Your task to perform on an android device: toggle priority inbox in the gmail app Image 0: 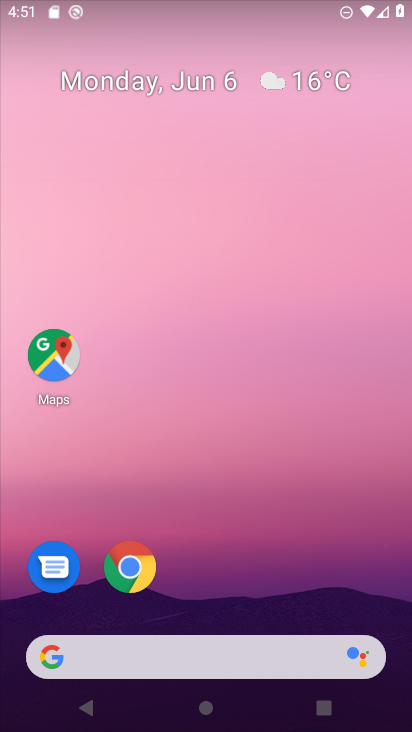
Step 0: drag from (291, 682) to (170, 229)
Your task to perform on an android device: toggle priority inbox in the gmail app Image 1: 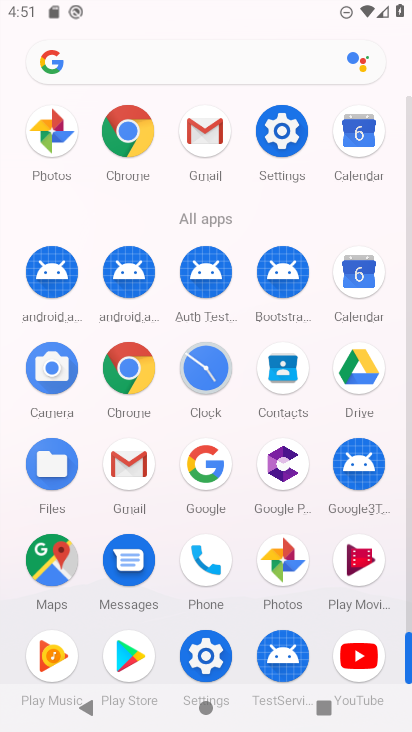
Step 1: click (119, 470)
Your task to perform on an android device: toggle priority inbox in the gmail app Image 2: 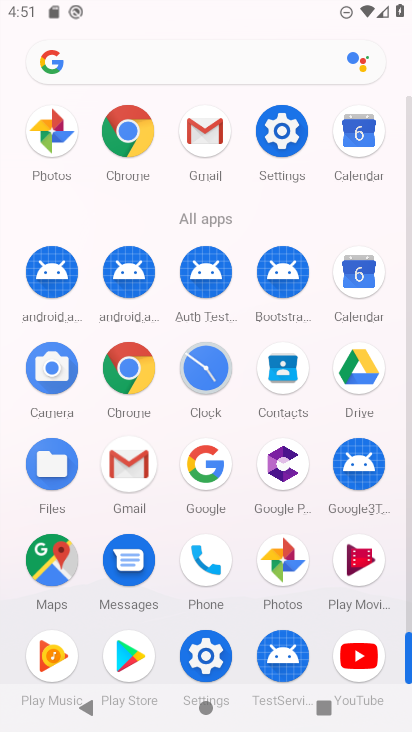
Step 2: click (120, 471)
Your task to perform on an android device: toggle priority inbox in the gmail app Image 3: 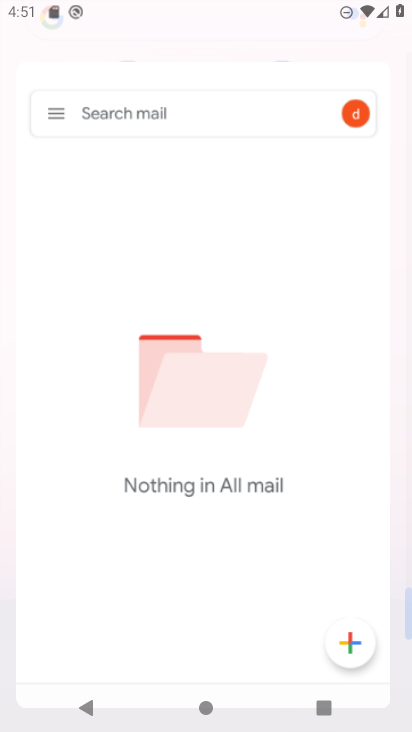
Step 3: click (120, 471)
Your task to perform on an android device: toggle priority inbox in the gmail app Image 4: 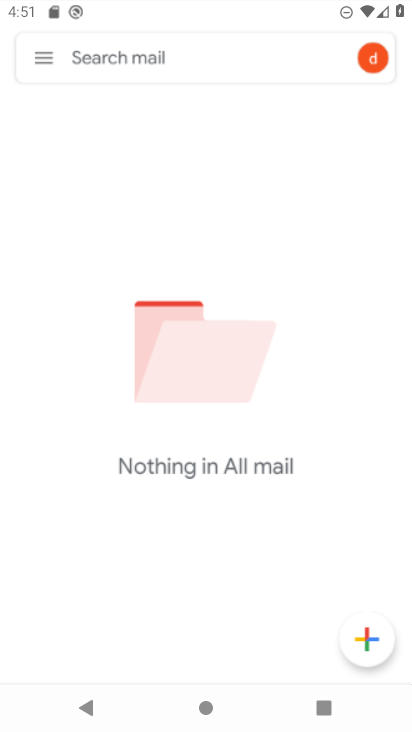
Step 4: click (120, 471)
Your task to perform on an android device: toggle priority inbox in the gmail app Image 5: 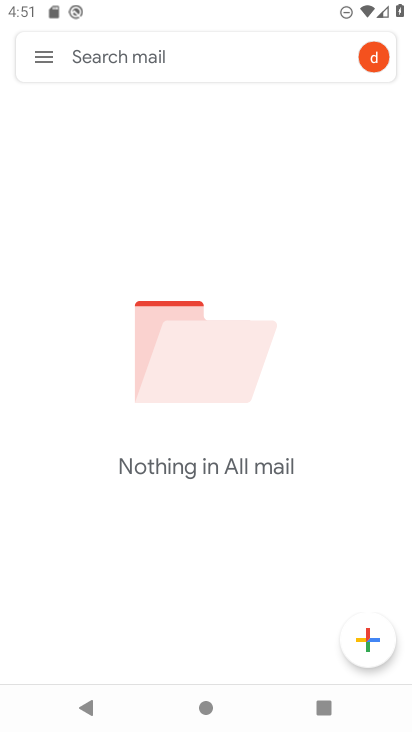
Step 5: click (120, 471)
Your task to perform on an android device: toggle priority inbox in the gmail app Image 6: 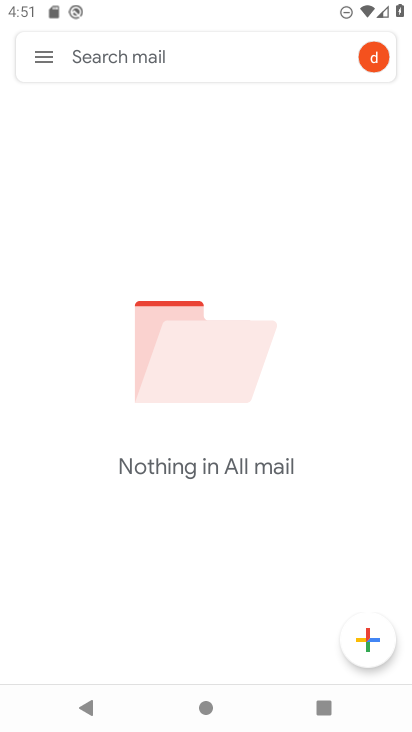
Step 6: click (52, 56)
Your task to perform on an android device: toggle priority inbox in the gmail app Image 7: 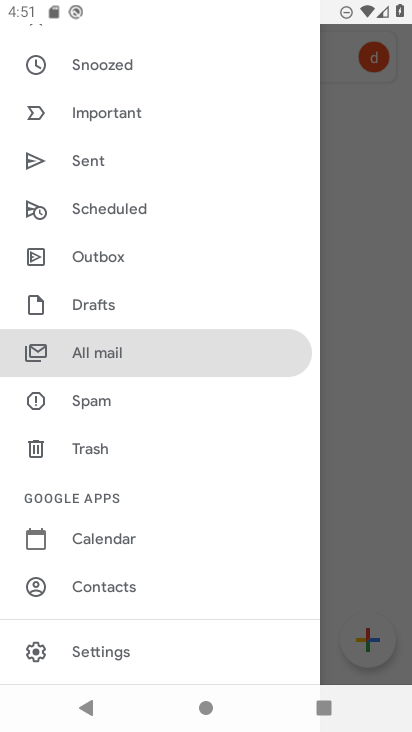
Step 7: drag from (108, 612) to (85, 91)
Your task to perform on an android device: toggle priority inbox in the gmail app Image 8: 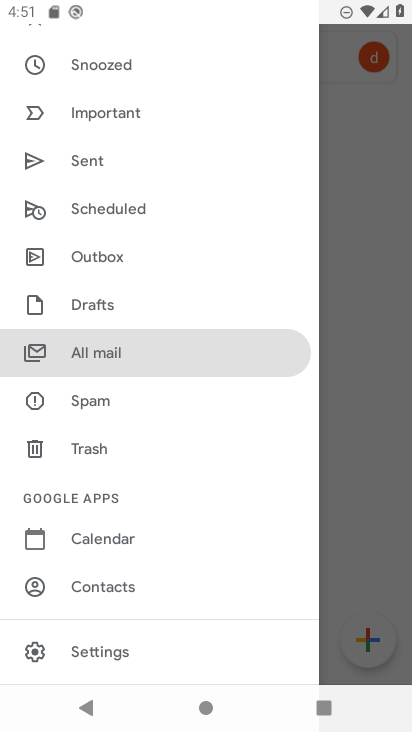
Step 8: drag from (136, 424) to (80, 5)
Your task to perform on an android device: toggle priority inbox in the gmail app Image 9: 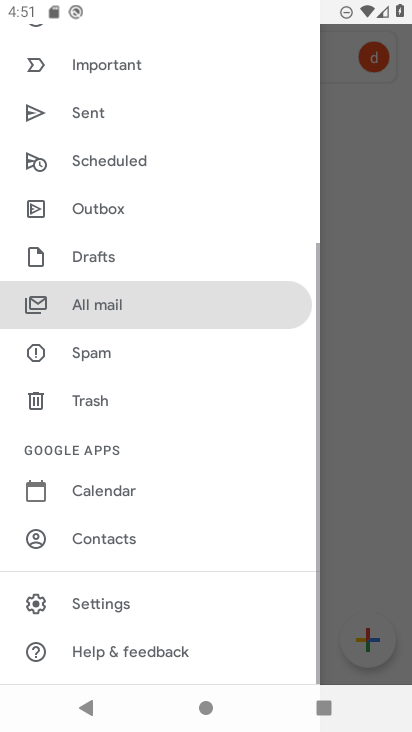
Step 9: click (112, 649)
Your task to perform on an android device: toggle priority inbox in the gmail app Image 10: 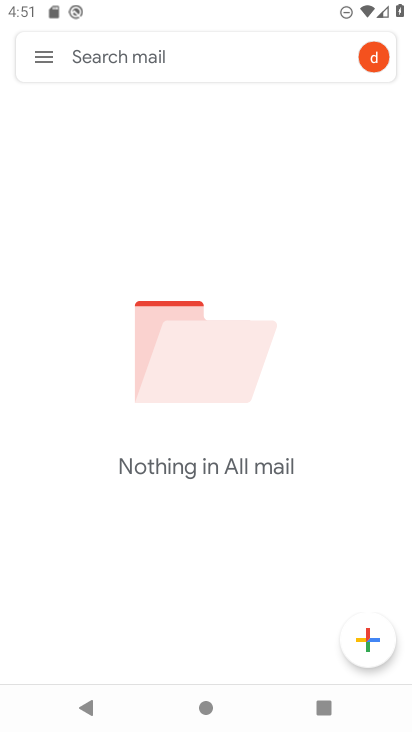
Step 10: click (102, 592)
Your task to perform on an android device: toggle priority inbox in the gmail app Image 11: 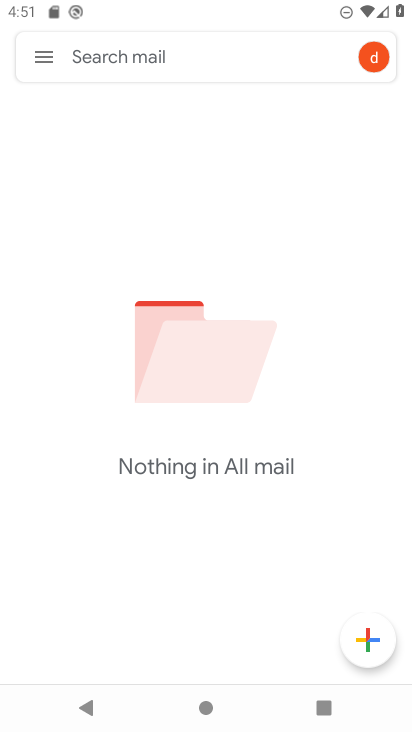
Step 11: click (33, 56)
Your task to perform on an android device: toggle priority inbox in the gmail app Image 12: 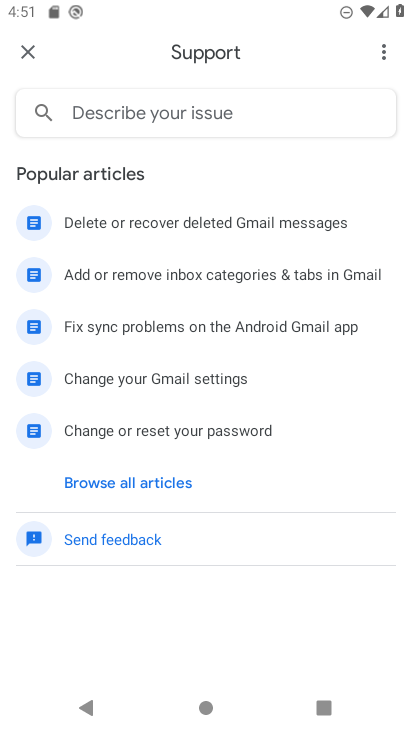
Step 12: click (27, 57)
Your task to perform on an android device: toggle priority inbox in the gmail app Image 13: 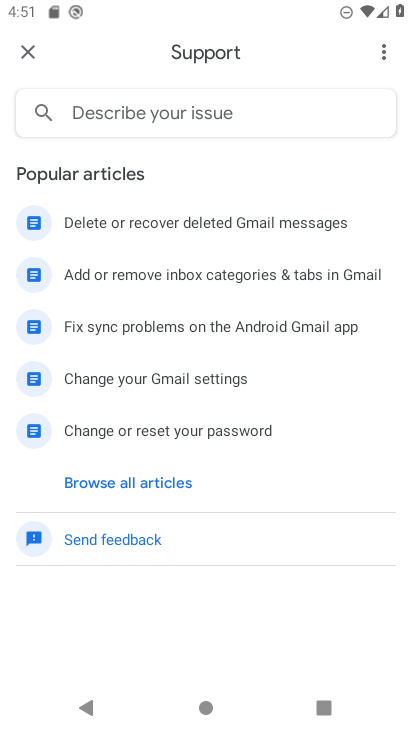
Step 13: click (27, 55)
Your task to perform on an android device: toggle priority inbox in the gmail app Image 14: 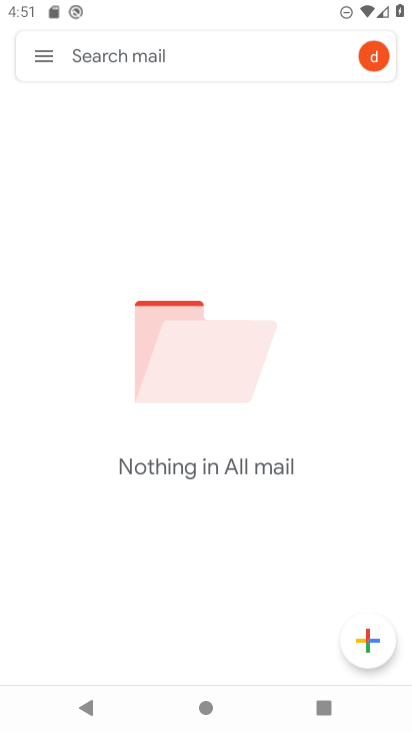
Step 14: click (26, 54)
Your task to perform on an android device: toggle priority inbox in the gmail app Image 15: 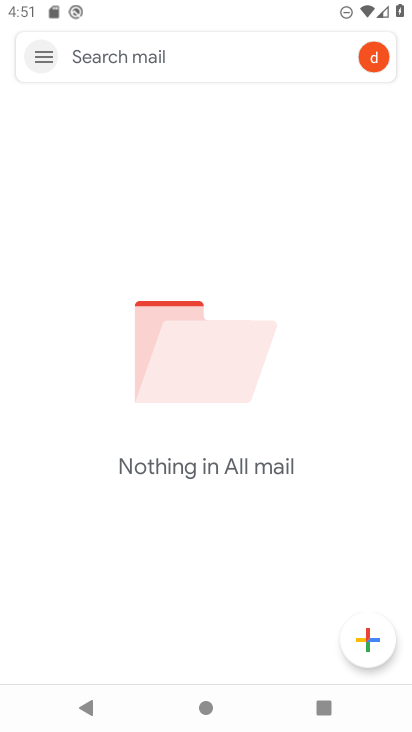
Step 15: click (26, 54)
Your task to perform on an android device: toggle priority inbox in the gmail app Image 16: 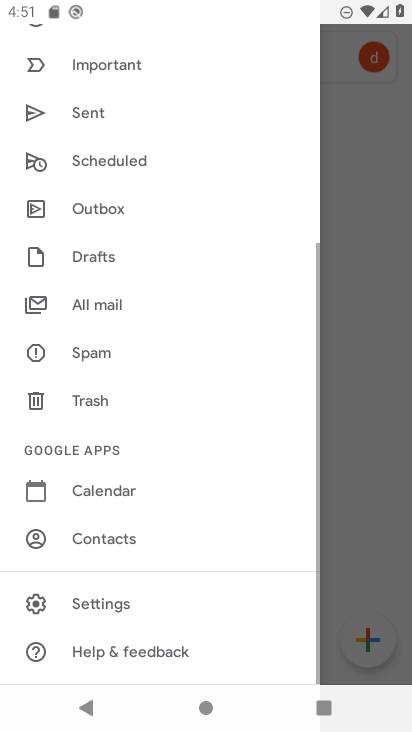
Step 16: click (95, 600)
Your task to perform on an android device: toggle priority inbox in the gmail app Image 17: 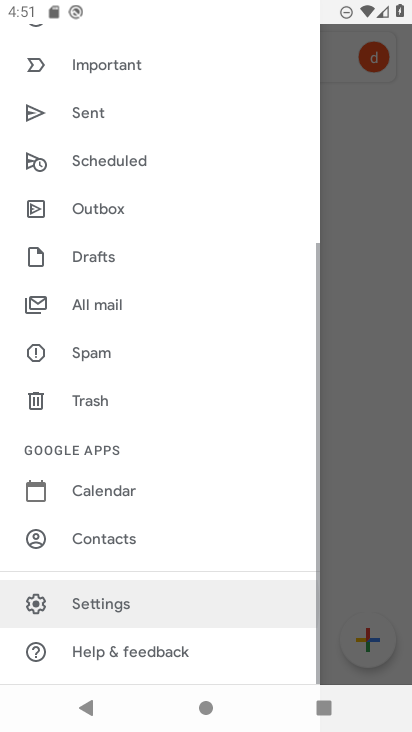
Step 17: click (95, 600)
Your task to perform on an android device: toggle priority inbox in the gmail app Image 18: 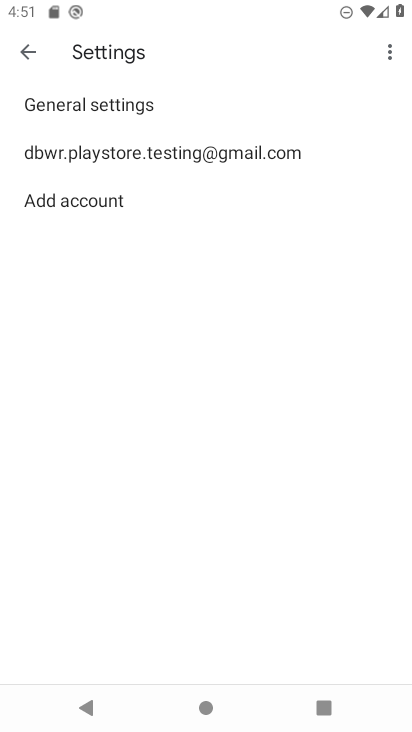
Step 18: click (133, 143)
Your task to perform on an android device: toggle priority inbox in the gmail app Image 19: 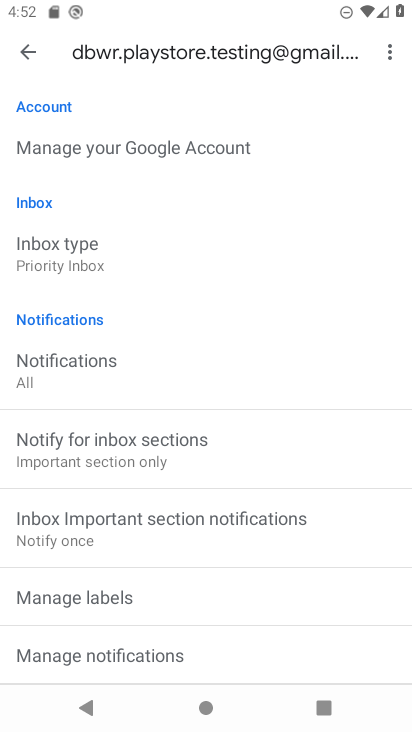
Step 19: click (70, 255)
Your task to perform on an android device: toggle priority inbox in the gmail app Image 20: 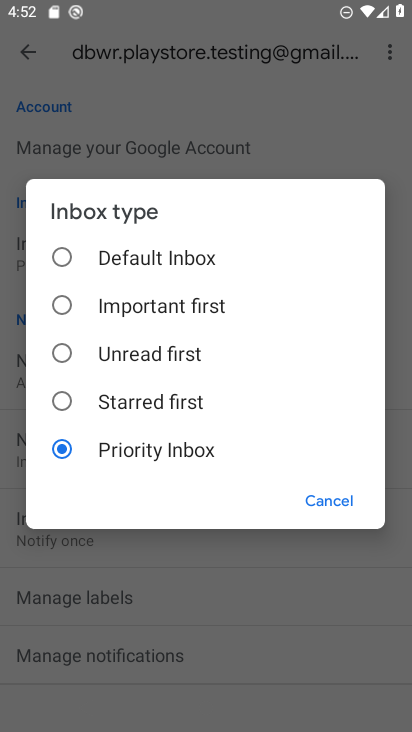
Step 20: click (57, 401)
Your task to perform on an android device: toggle priority inbox in the gmail app Image 21: 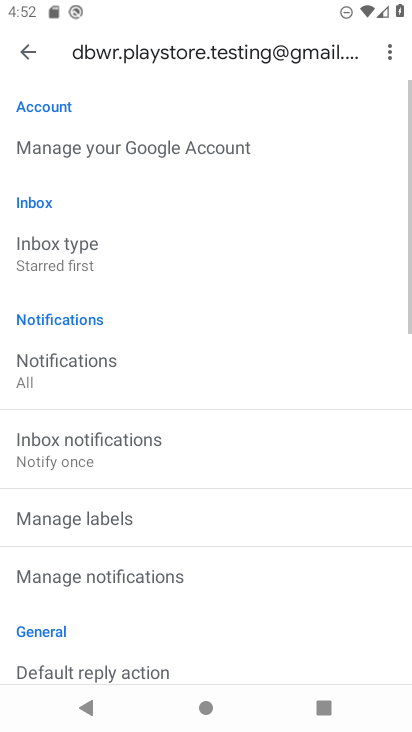
Step 21: task complete